Your task to perform on an android device: uninstall "DuckDuckGo Privacy Browser" Image 0: 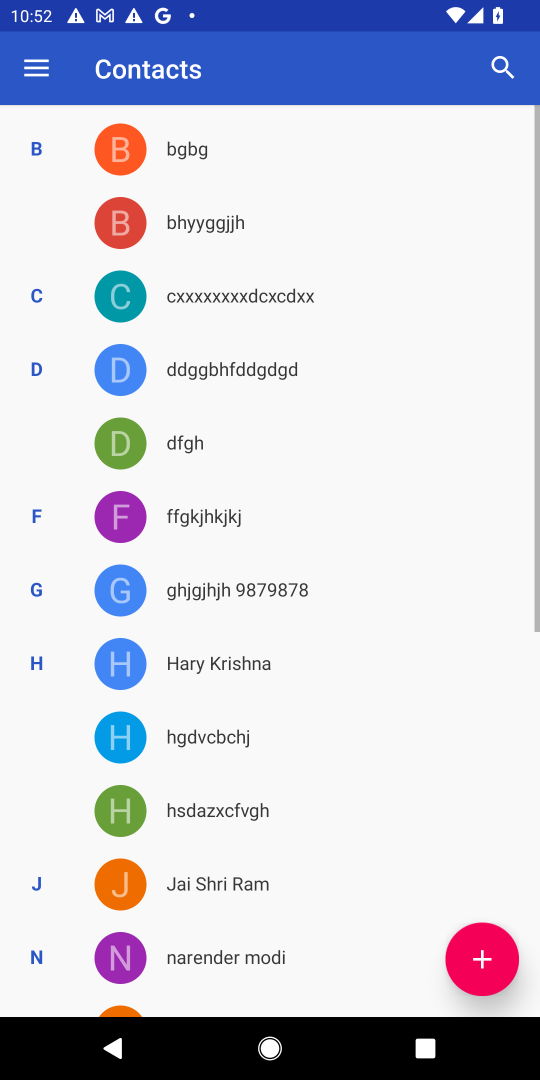
Step 0: press home button
Your task to perform on an android device: uninstall "DuckDuckGo Privacy Browser" Image 1: 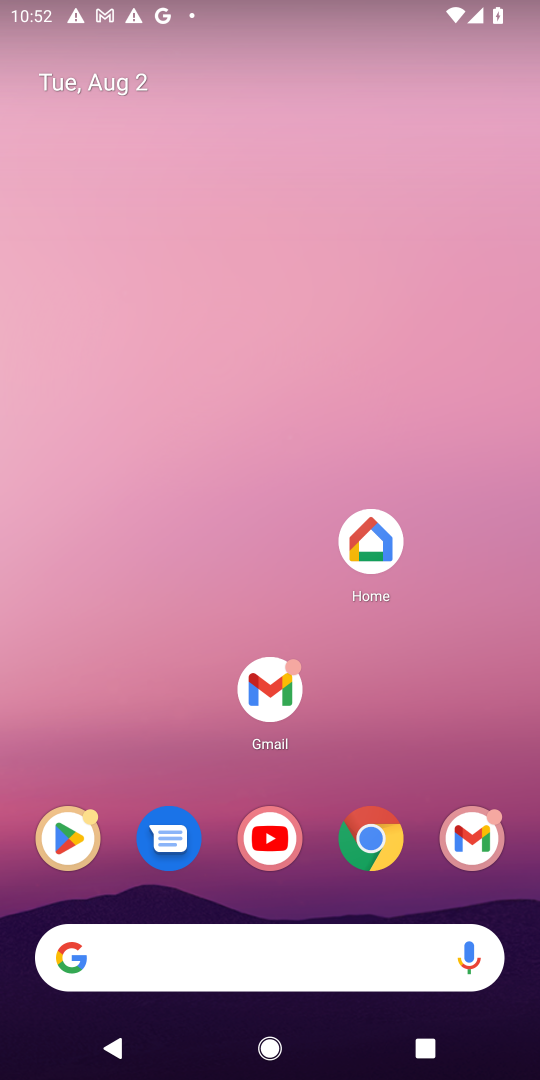
Step 1: drag from (458, 725) to (452, 106)
Your task to perform on an android device: uninstall "DuckDuckGo Privacy Browser" Image 2: 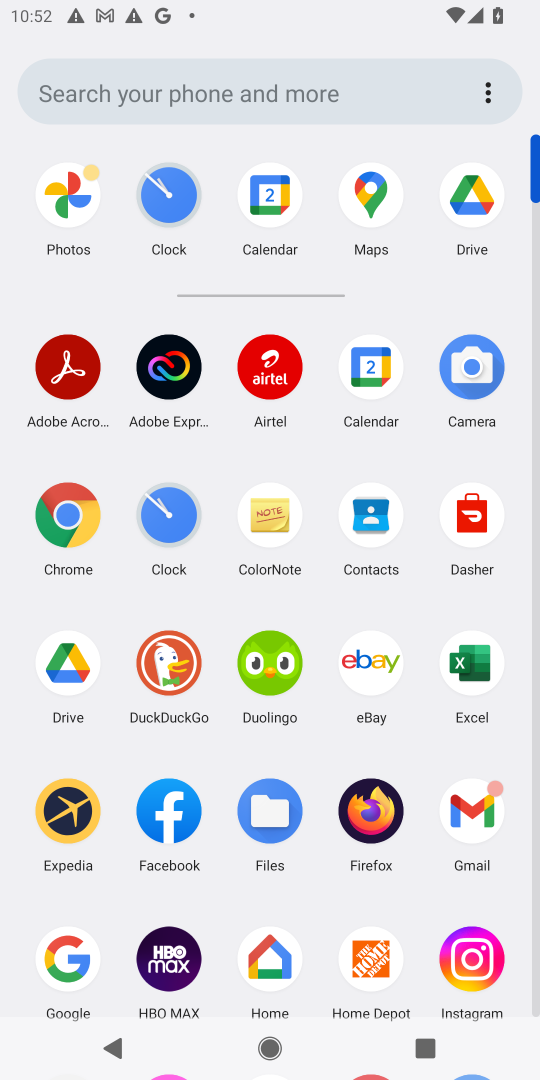
Step 2: drag from (404, 886) to (407, 603)
Your task to perform on an android device: uninstall "DuckDuckGo Privacy Browser" Image 3: 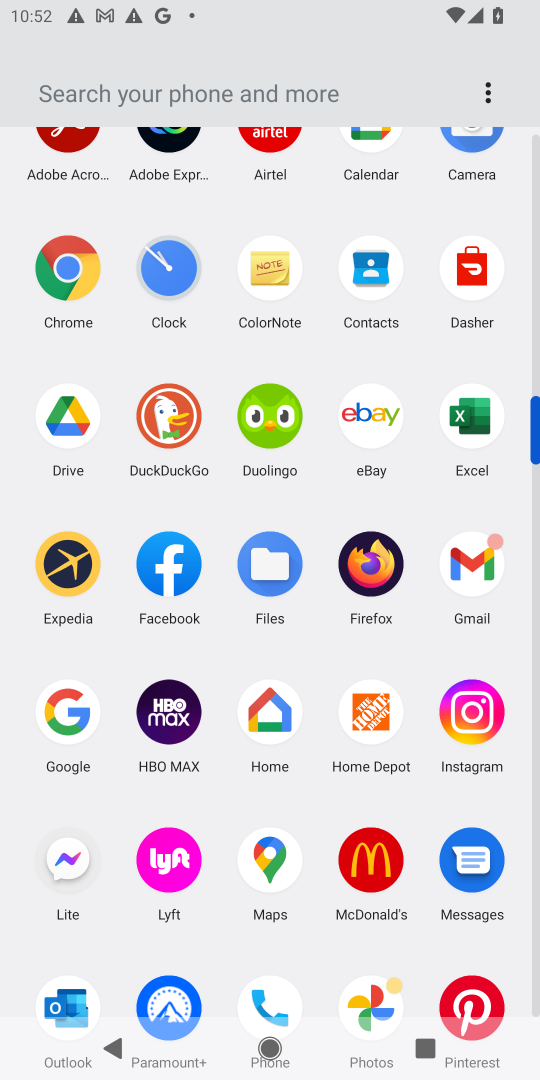
Step 3: drag from (414, 938) to (422, 535)
Your task to perform on an android device: uninstall "DuckDuckGo Privacy Browser" Image 4: 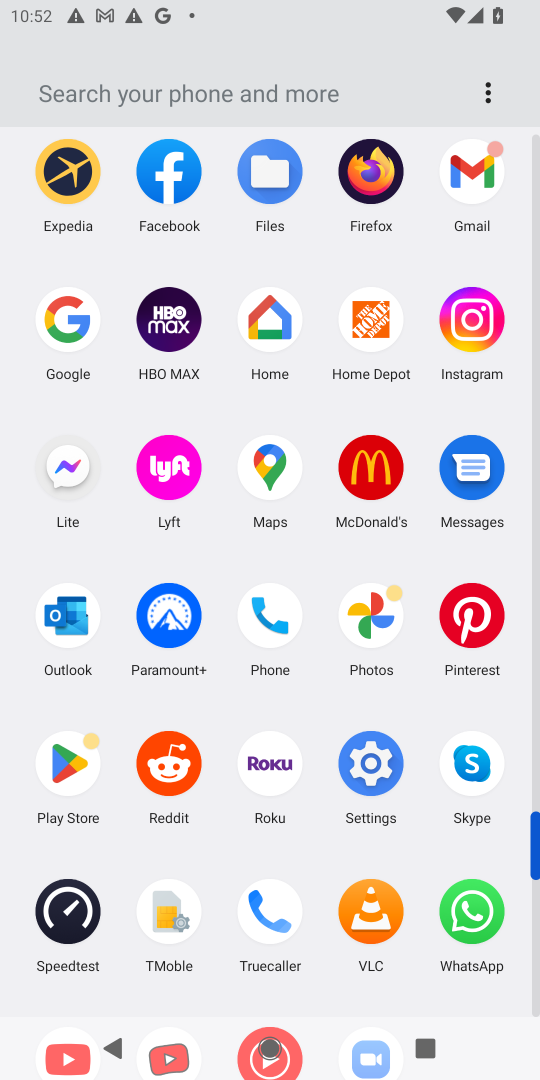
Step 4: click (72, 765)
Your task to perform on an android device: uninstall "DuckDuckGo Privacy Browser" Image 5: 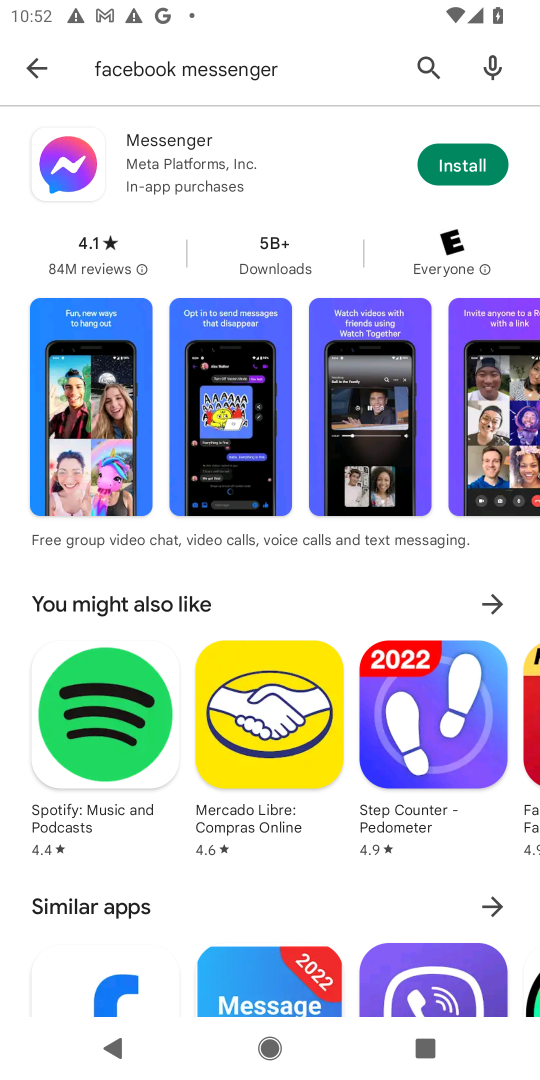
Step 5: click (427, 63)
Your task to perform on an android device: uninstall "DuckDuckGo Privacy Browser" Image 6: 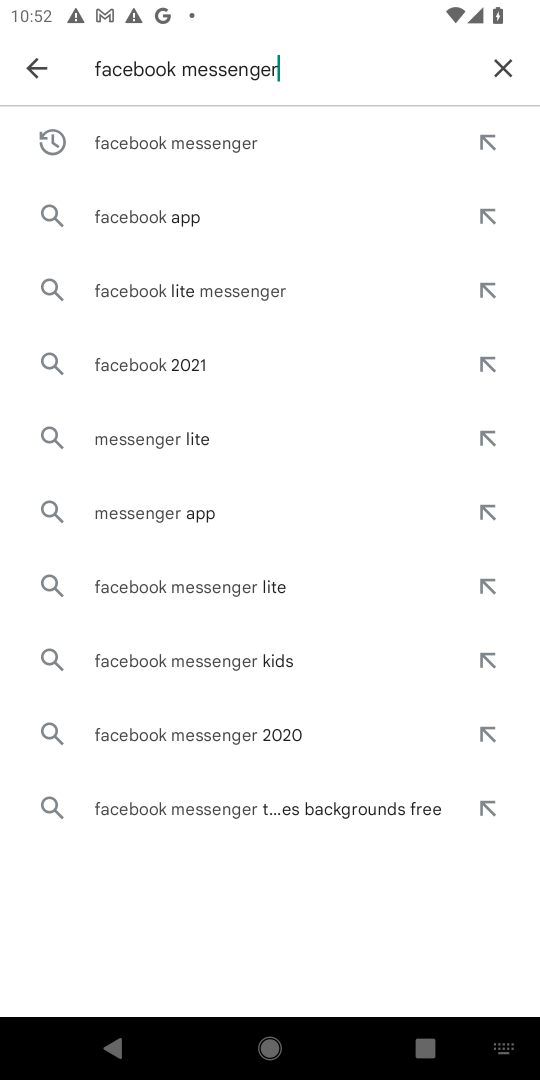
Step 6: click (491, 69)
Your task to perform on an android device: uninstall "DuckDuckGo Privacy Browser" Image 7: 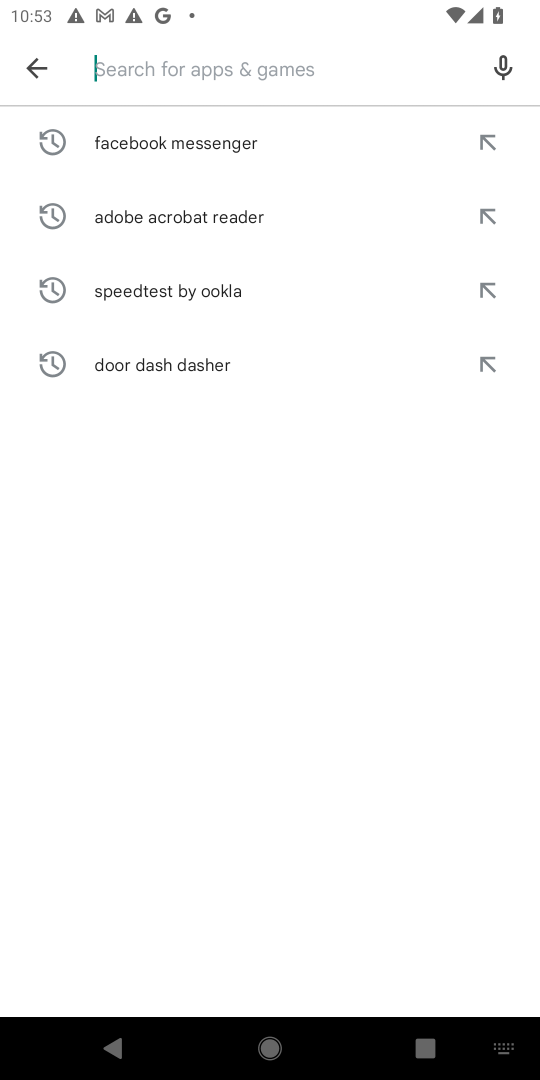
Step 7: type "duckduckgo privacy browser"
Your task to perform on an android device: uninstall "DuckDuckGo Privacy Browser" Image 8: 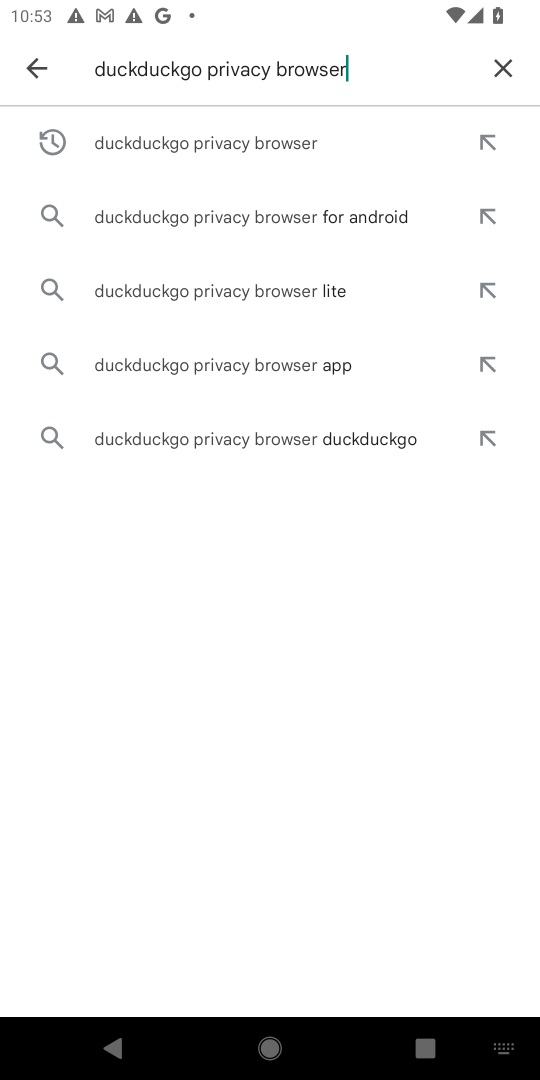
Step 8: click (311, 136)
Your task to perform on an android device: uninstall "DuckDuckGo Privacy Browser" Image 9: 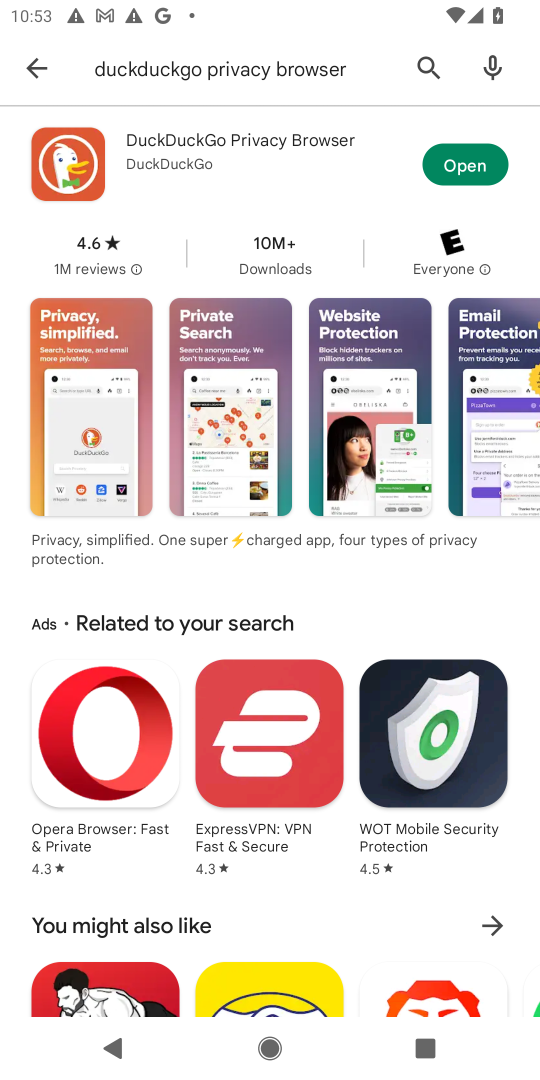
Step 9: task complete